Your task to perform on an android device: When is my next meeting? Image 0: 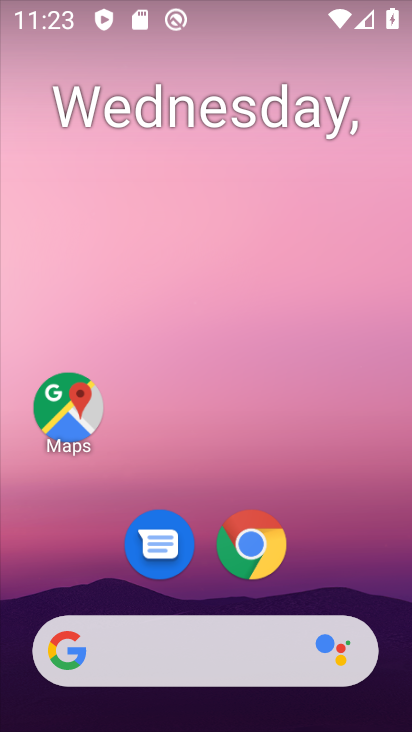
Step 0: drag from (290, 578) to (216, 246)
Your task to perform on an android device: When is my next meeting? Image 1: 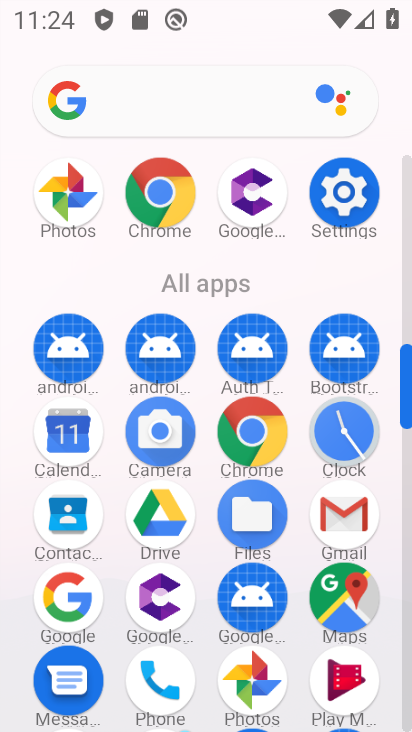
Step 1: click (76, 463)
Your task to perform on an android device: When is my next meeting? Image 2: 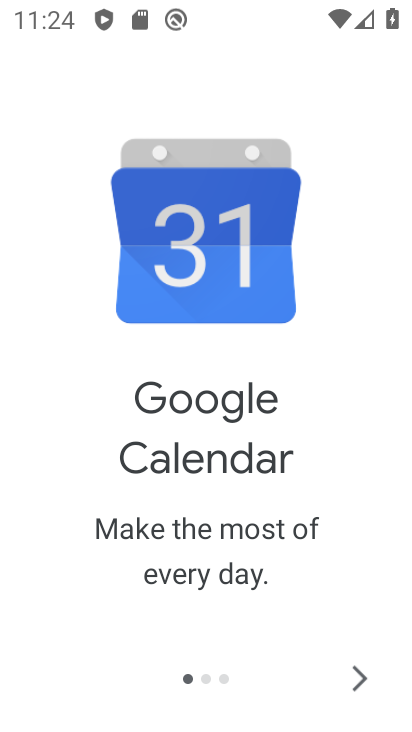
Step 2: click (356, 671)
Your task to perform on an android device: When is my next meeting? Image 3: 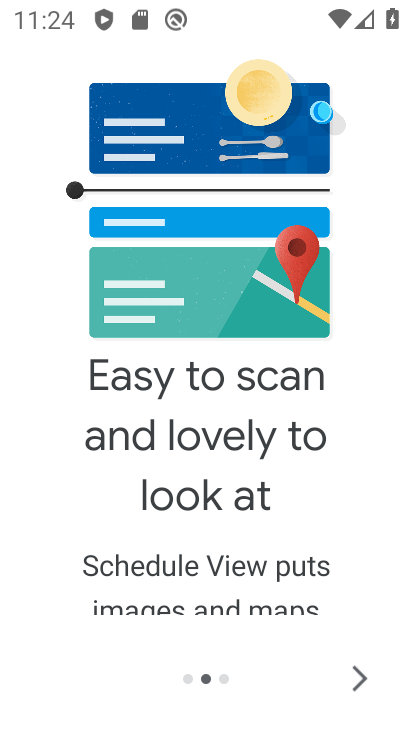
Step 3: click (356, 671)
Your task to perform on an android device: When is my next meeting? Image 4: 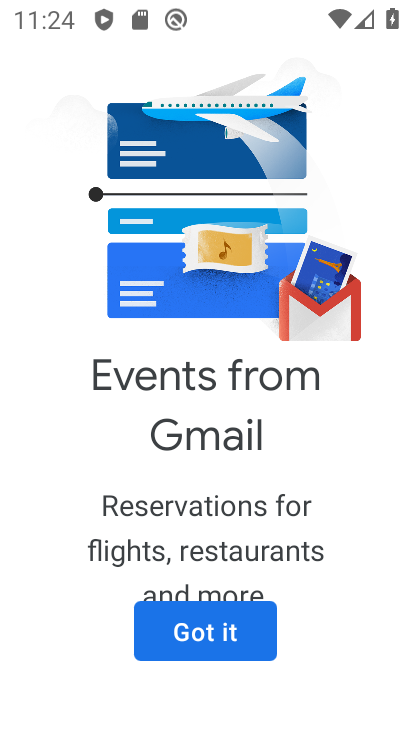
Step 4: click (222, 630)
Your task to perform on an android device: When is my next meeting? Image 5: 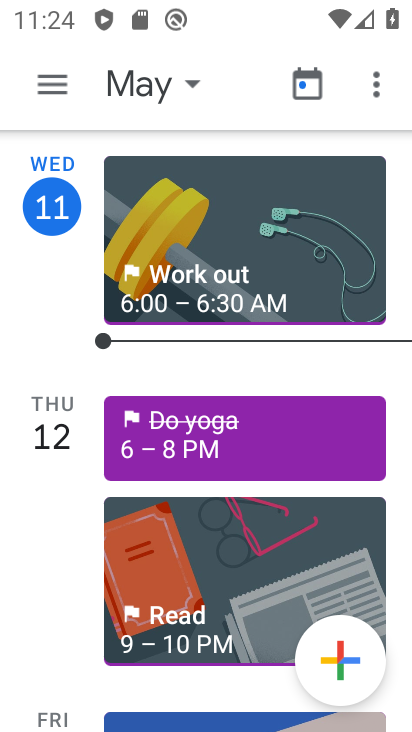
Step 5: drag from (185, 458) to (229, 315)
Your task to perform on an android device: When is my next meeting? Image 6: 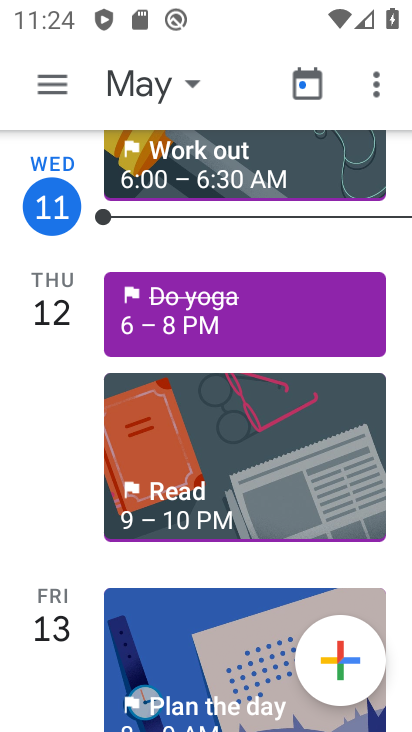
Step 6: drag from (193, 574) to (232, 260)
Your task to perform on an android device: When is my next meeting? Image 7: 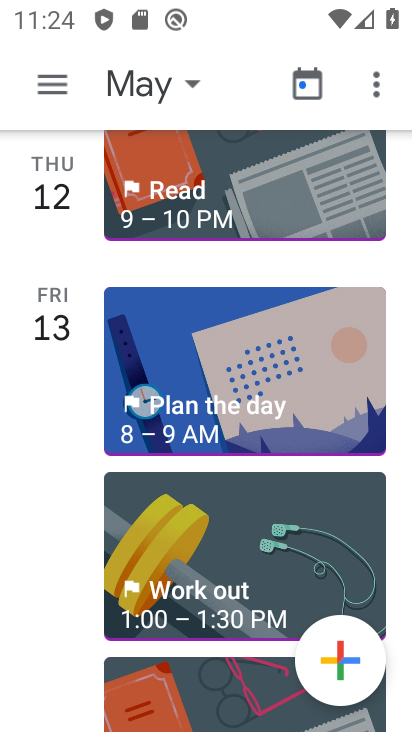
Step 7: drag from (217, 676) to (224, 439)
Your task to perform on an android device: When is my next meeting? Image 8: 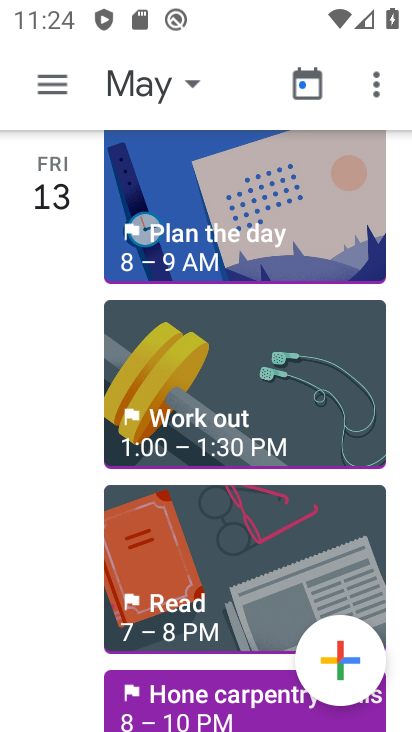
Step 8: drag from (218, 619) to (221, 576)
Your task to perform on an android device: When is my next meeting? Image 9: 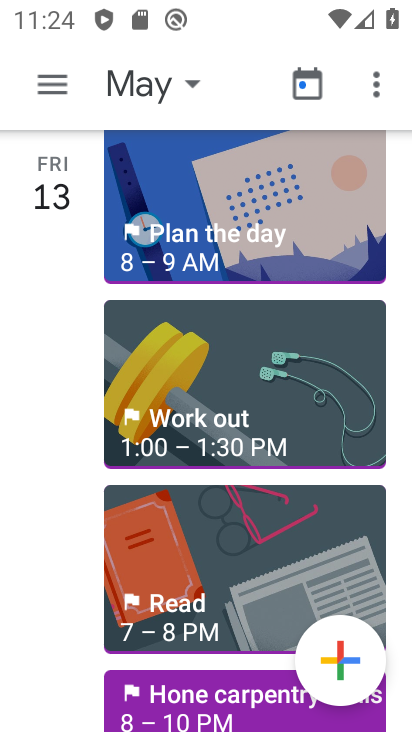
Step 9: drag from (253, 572) to (366, 108)
Your task to perform on an android device: When is my next meeting? Image 10: 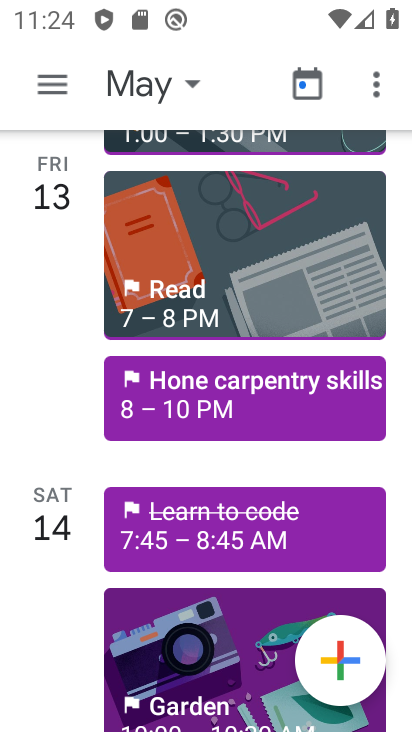
Step 10: drag from (213, 628) to (262, 287)
Your task to perform on an android device: When is my next meeting? Image 11: 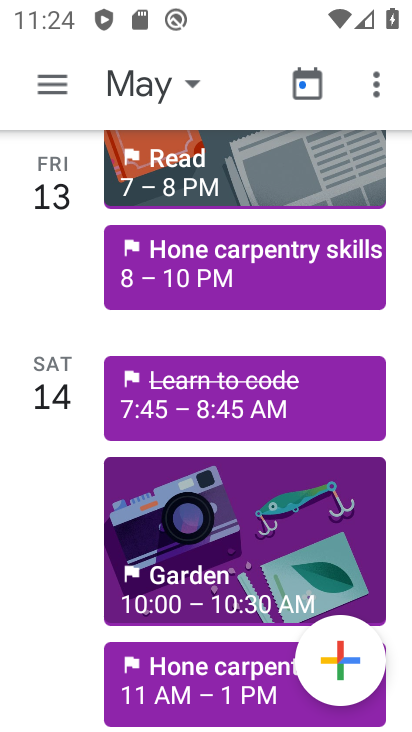
Step 11: drag from (224, 707) to (250, 379)
Your task to perform on an android device: When is my next meeting? Image 12: 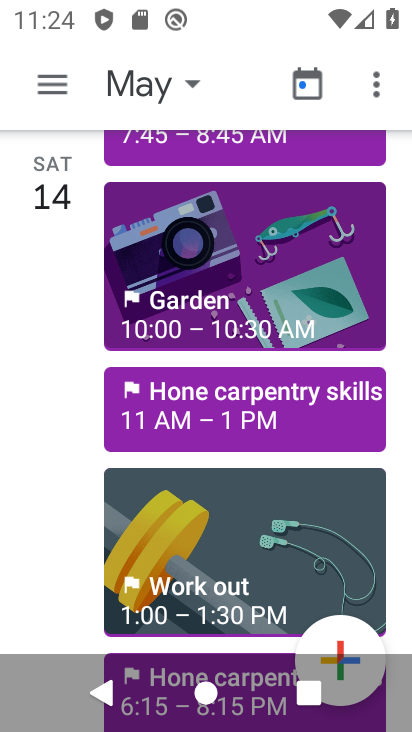
Step 12: drag from (76, 621) to (129, 249)
Your task to perform on an android device: When is my next meeting? Image 13: 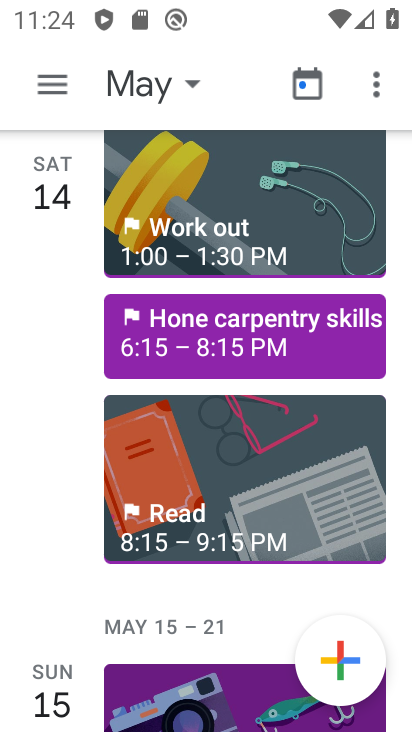
Step 13: drag from (125, 599) to (206, 191)
Your task to perform on an android device: When is my next meeting? Image 14: 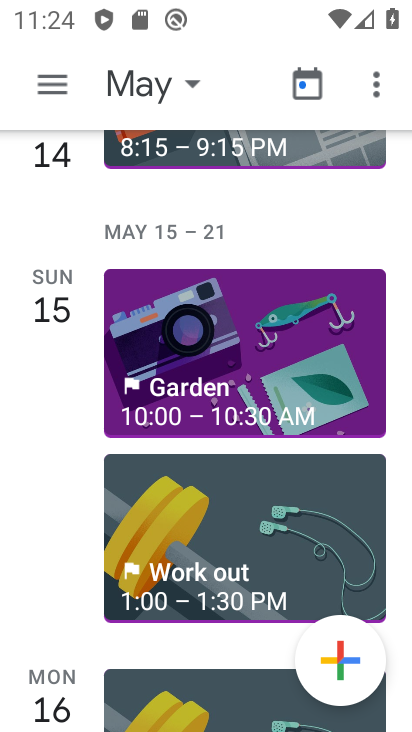
Step 14: drag from (132, 704) to (215, 237)
Your task to perform on an android device: When is my next meeting? Image 15: 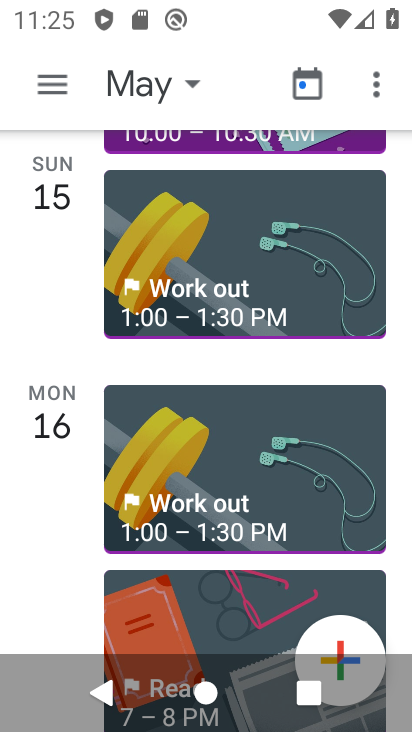
Step 15: drag from (119, 570) to (244, 37)
Your task to perform on an android device: When is my next meeting? Image 16: 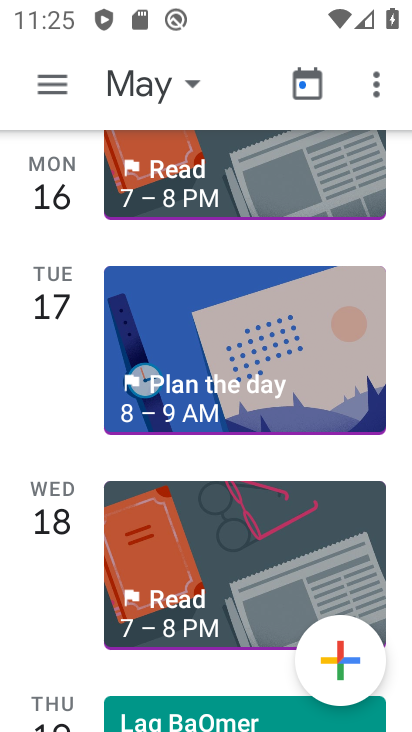
Step 16: drag from (220, 676) to (254, 182)
Your task to perform on an android device: When is my next meeting? Image 17: 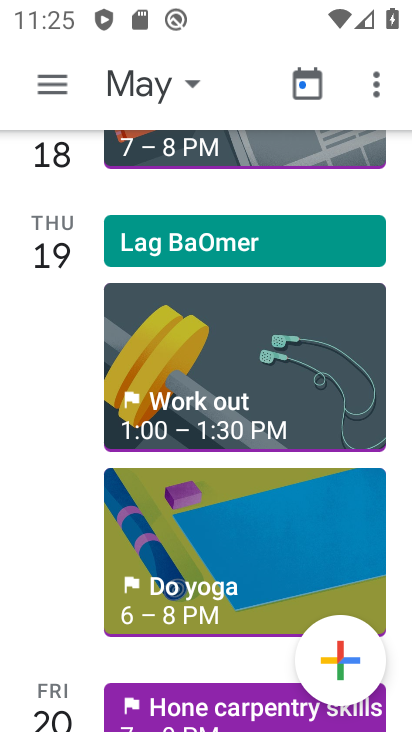
Step 17: drag from (187, 619) to (286, 48)
Your task to perform on an android device: When is my next meeting? Image 18: 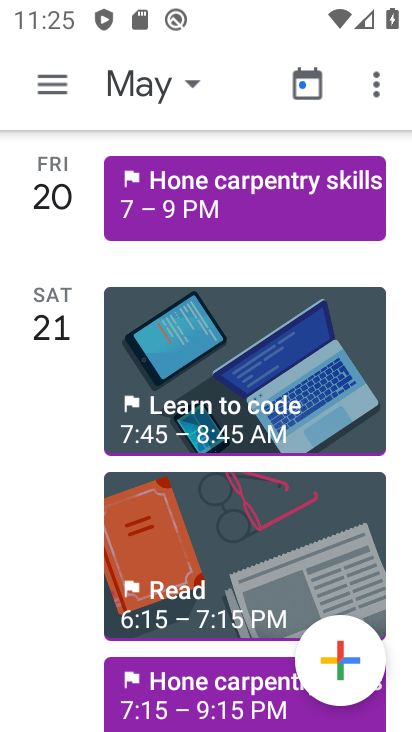
Step 18: drag from (249, 622) to (251, 25)
Your task to perform on an android device: When is my next meeting? Image 19: 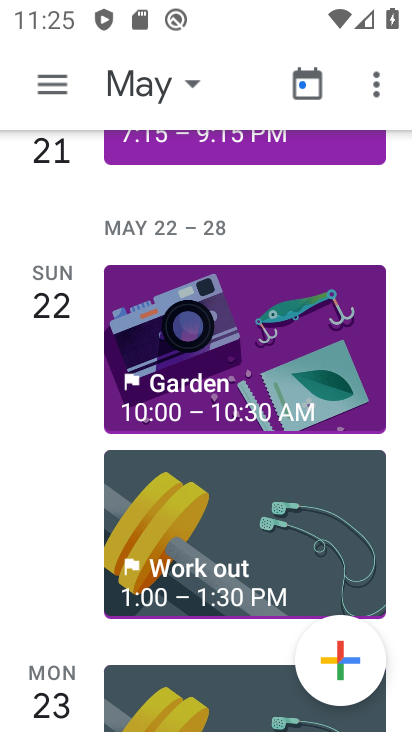
Step 19: drag from (179, 670) to (210, 176)
Your task to perform on an android device: When is my next meeting? Image 20: 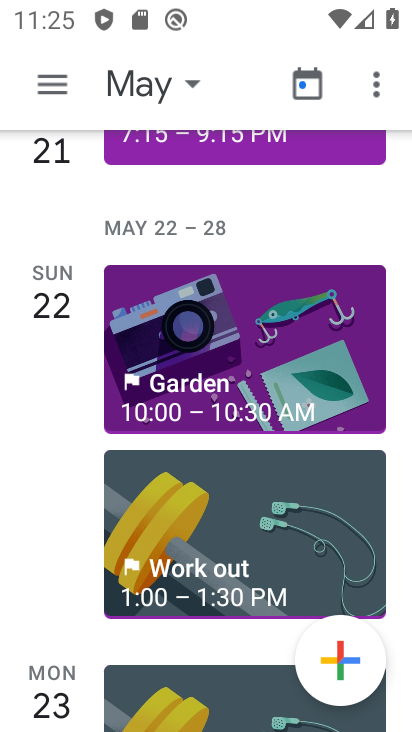
Step 20: drag from (195, 634) to (195, 224)
Your task to perform on an android device: When is my next meeting? Image 21: 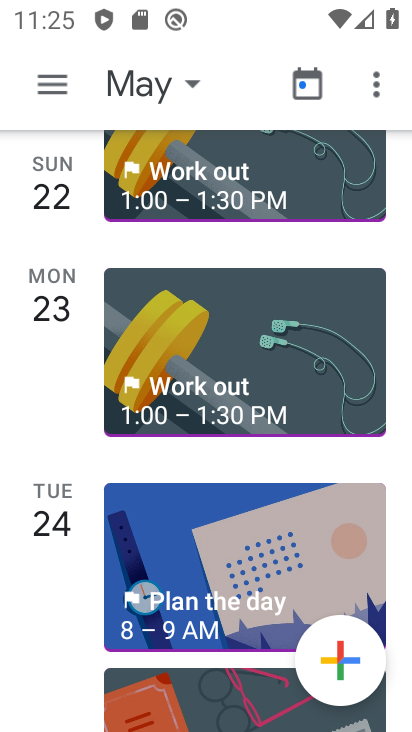
Step 21: drag from (220, 687) to (242, 133)
Your task to perform on an android device: When is my next meeting? Image 22: 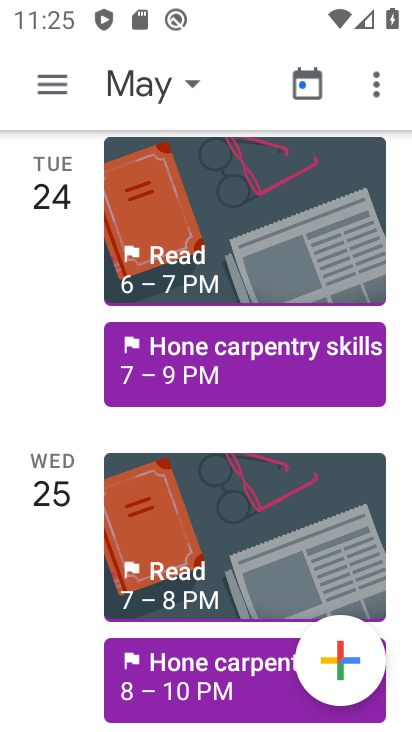
Step 22: drag from (350, 554) to (342, 220)
Your task to perform on an android device: When is my next meeting? Image 23: 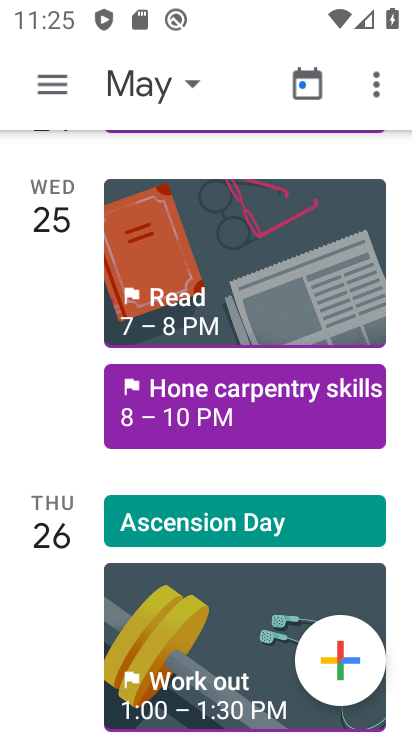
Step 23: drag from (236, 504) to (187, 145)
Your task to perform on an android device: When is my next meeting? Image 24: 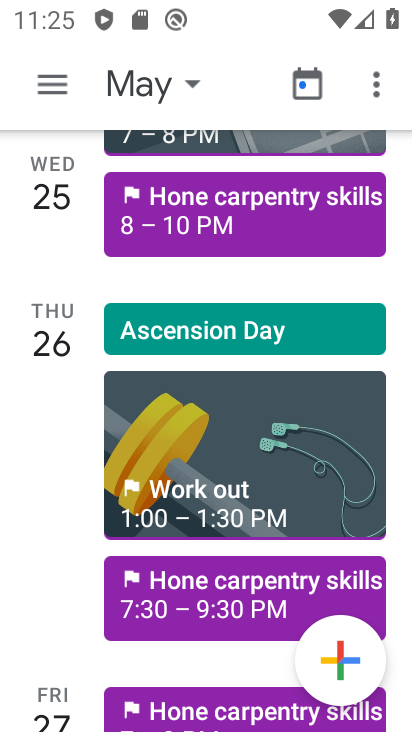
Step 24: drag from (159, 95) to (162, 51)
Your task to perform on an android device: When is my next meeting? Image 25: 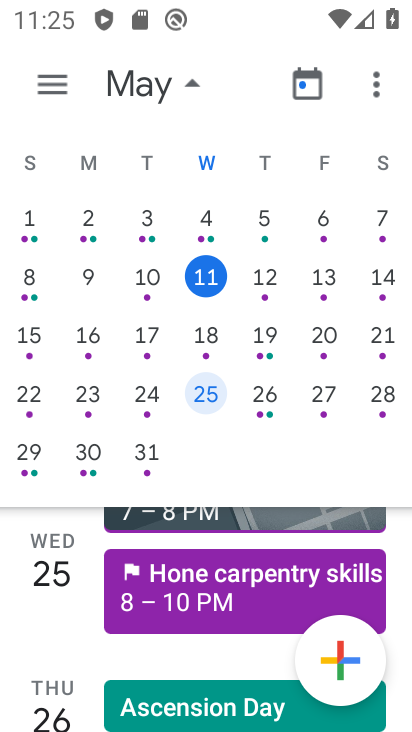
Step 25: click (154, 465)
Your task to perform on an android device: When is my next meeting? Image 26: 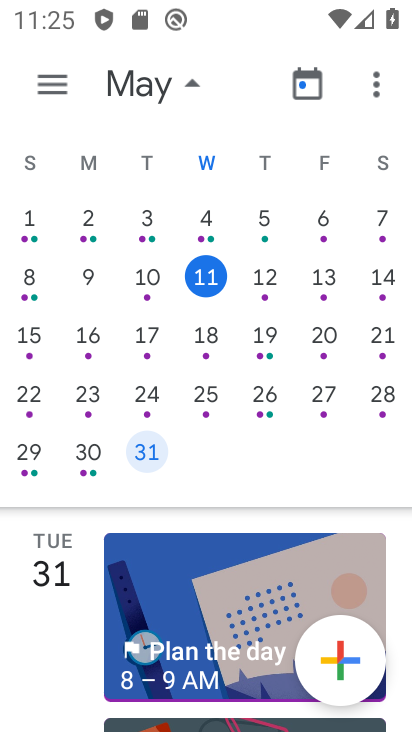
Step 26: drag from (169, 588) to (229, 362)
Your task to perform on an android device: When is my next meeting? Image 27: 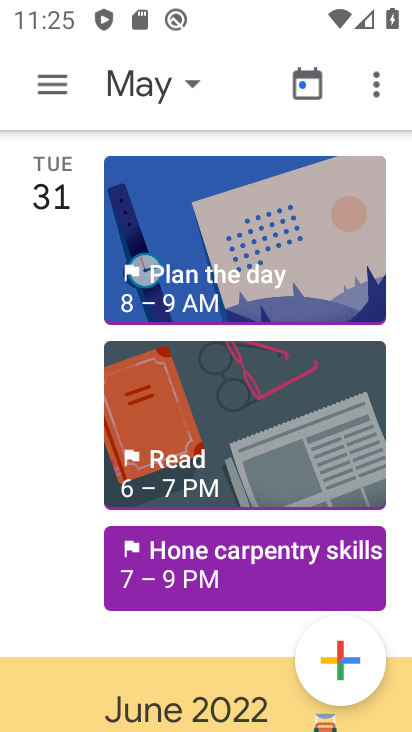
Step 27: drag from (224, 595) to (235, 263)
Your task to perform on an android device: When is my next meeting? Image 28: 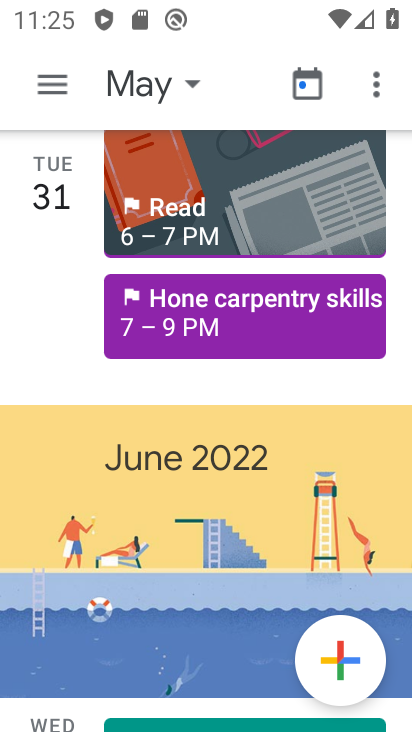
Step 28: drag from (210, 472) to (244, 312)
Your task to perform on an android device: When is my next meeting? Image 29: 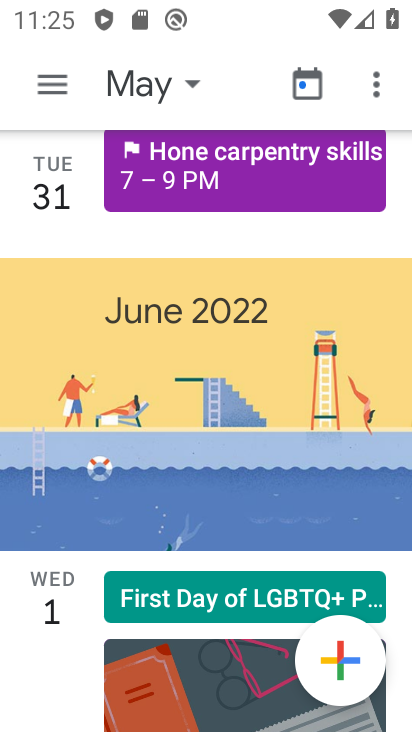
Step 29: drag from (167, 684) to (240, 341)
Your task to perform on an android device: When is my next meeting? Image 30: 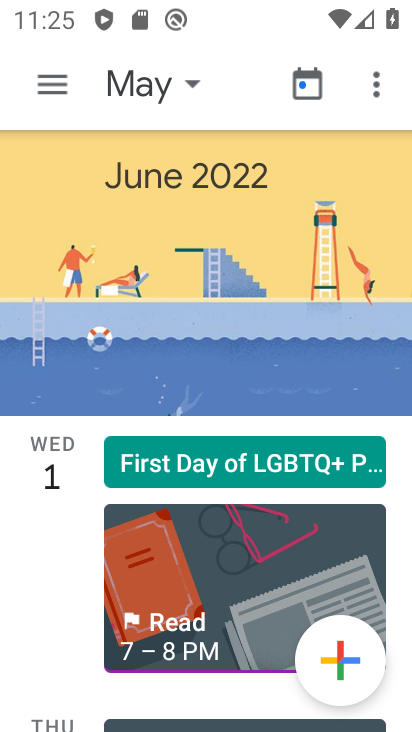
Step 30: drag from (181, 653) to (243, 305)
Your task to perform on an android device: When is my next meeting? Image 31: 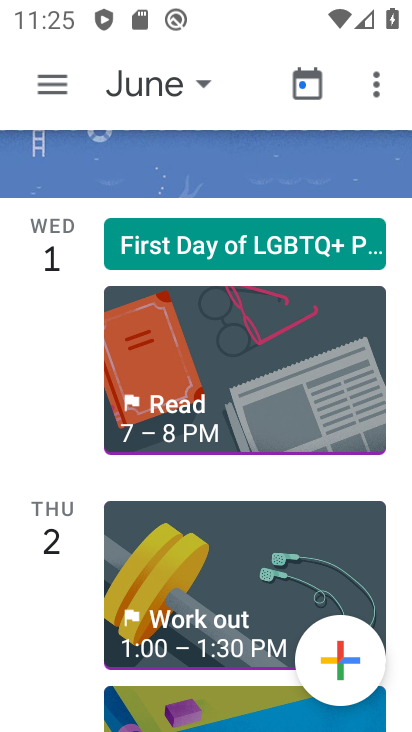
Step 31: drag from (251, 166) to (264, 88)
Your task to perform on an android device: When is my next meeting? Image 32: 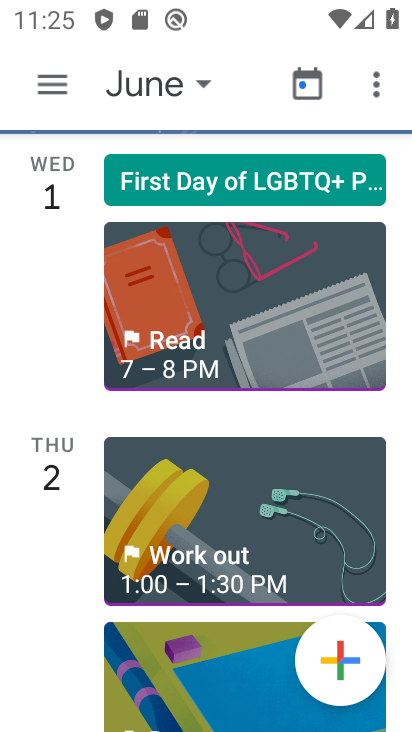
Step 32: drag from (174, 534) to (234, 256)
Your task to perform on an android device: When is my next meeting? Image 33: 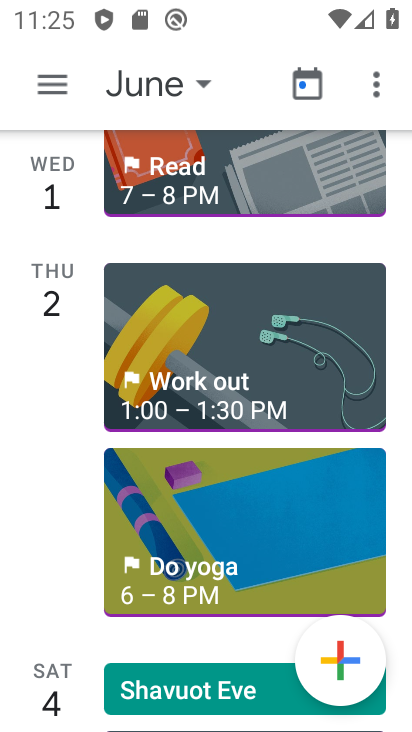
Step 33: drag from (168, 604) to (214, 211)
Your task to perform on an android device: When is my next meeting? Image 34: 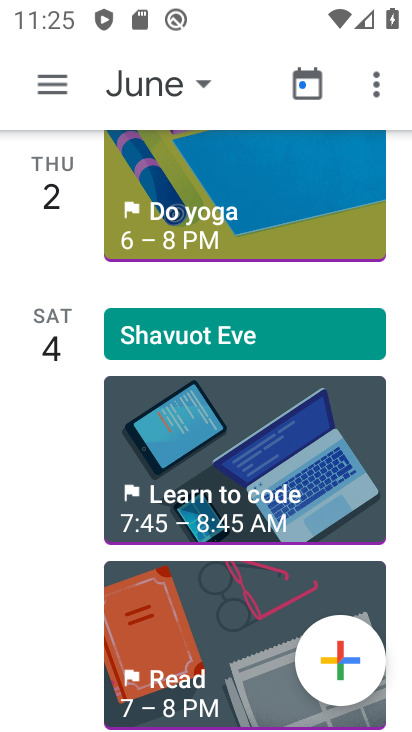
Step 34: drag from (303, 544) to (274, 327)
Your task to perform on an android device: When is my next meeting? Image 35: 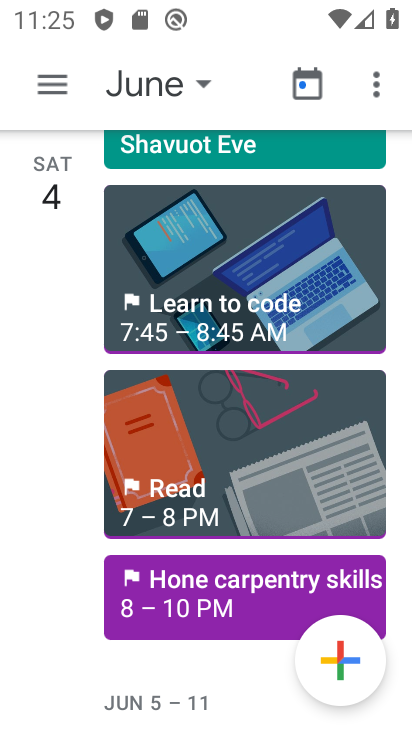
Step 35: drag from (82, 639) to (197, 205)
Your task to perform on an android device: When is my next meeting? Image 36: 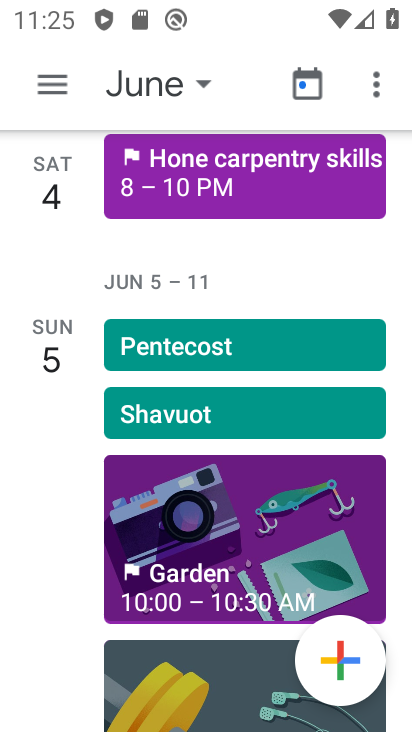
Step 36: drag from (154, 584) to (247, 276)
Your task to perform on an android device: When is my next meeting? Image 37: 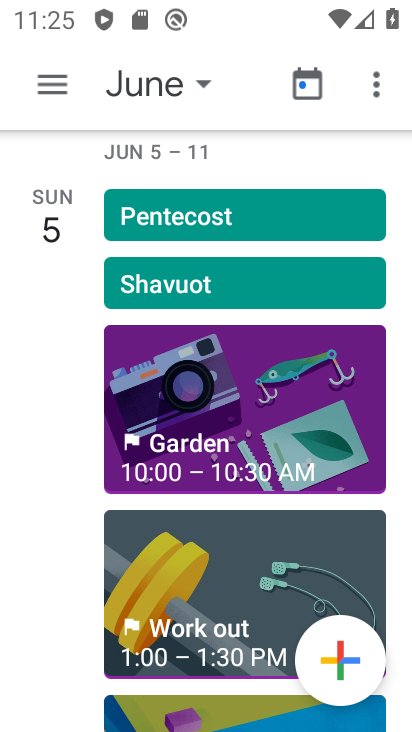
Step 37: click (248, 276)
Your task to perform on an android device: When is my next meeting? Image 38: 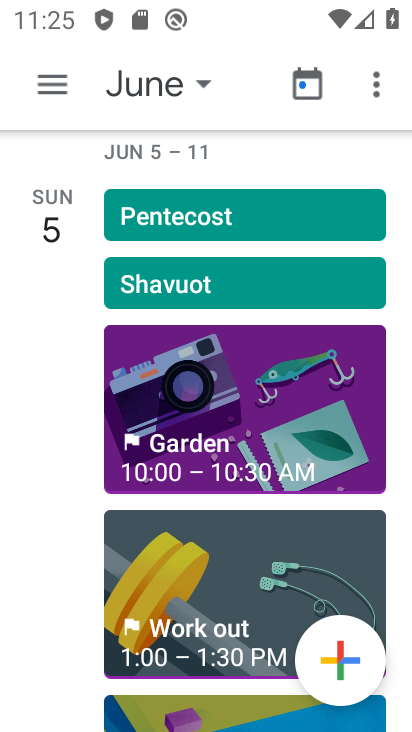
Step 38: task complete